Your task to perform on an android device: Add "corsair k70" to the cart on walmart.com, then select checkout. Image 0: 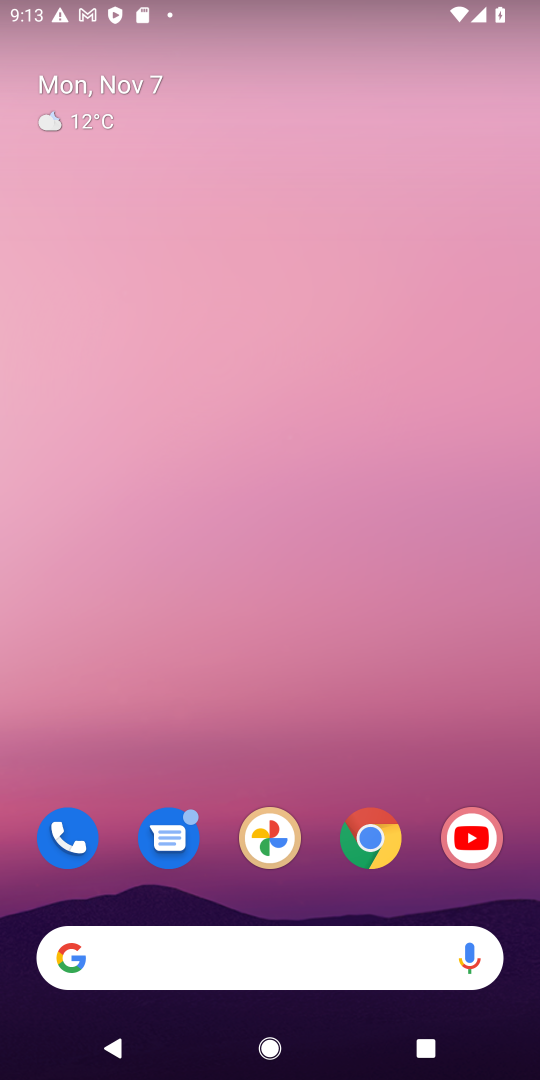
Step 0: click (384, 842)
Your task to perform on an android device: Add "corsair k70" to the cart on walmart.com, then select checkout. Image 1: 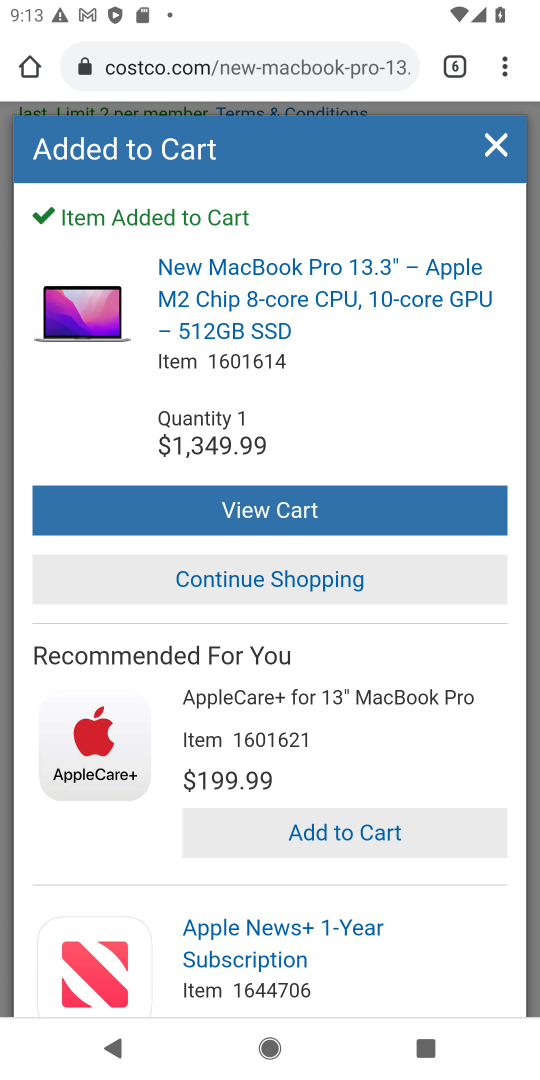
Step 1: click (509, 149)
Your task to perform on an android device: Add "corsair k70" to the cart on walmart.com, then select checkout. Image 2: 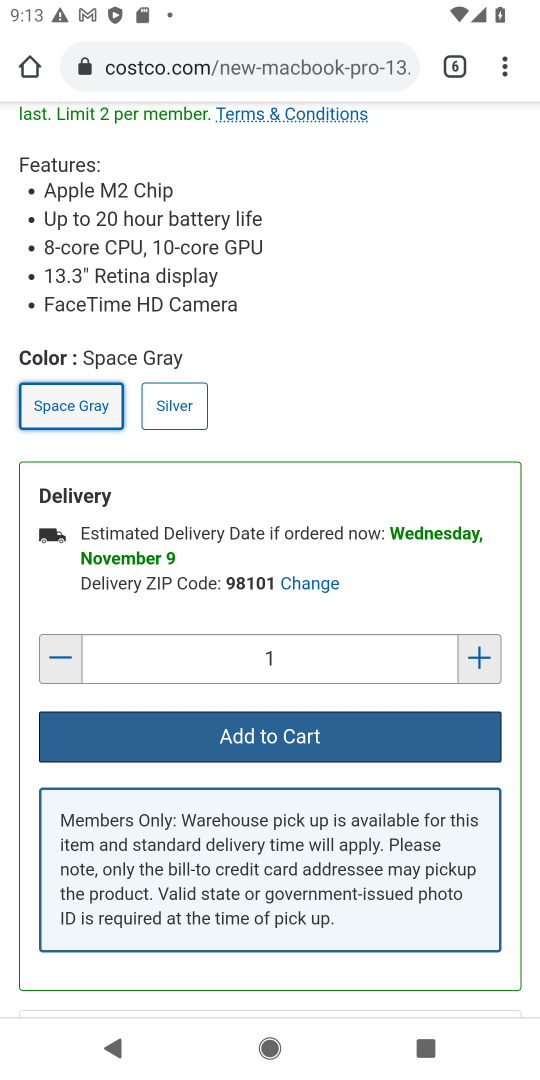
Step 2: drag from (318, 211) to (247, 841)
Your task to perform on an android device: Add "corsair k70" to the cart on walmart.com, then select checkout. Image 3: 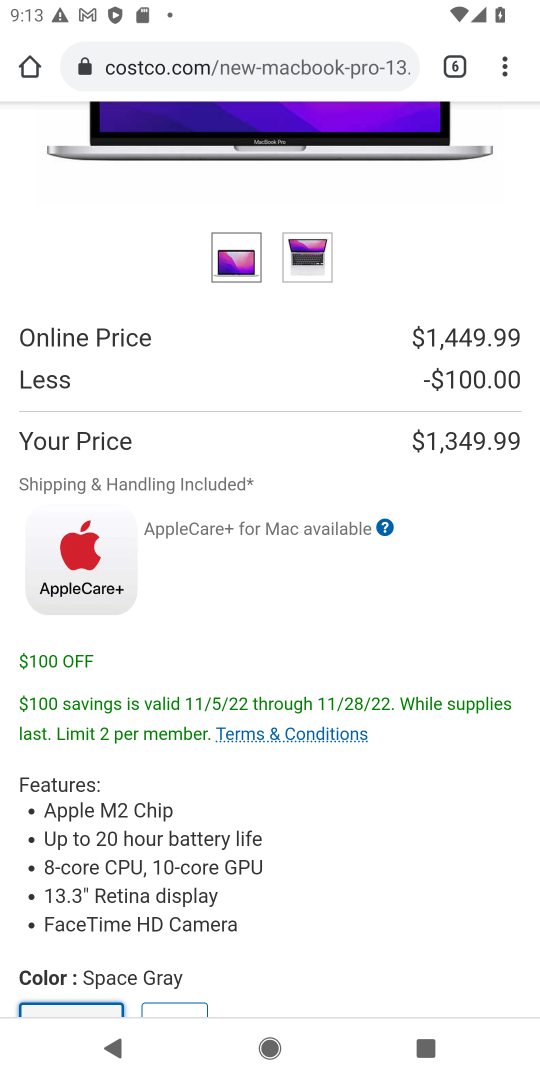
Step 3: drag from (239, 258) to (264, 1044)
Your task to perform on an android device: Add "corsair k70" to the cart on walmart.com, then select checkout. Image 4: 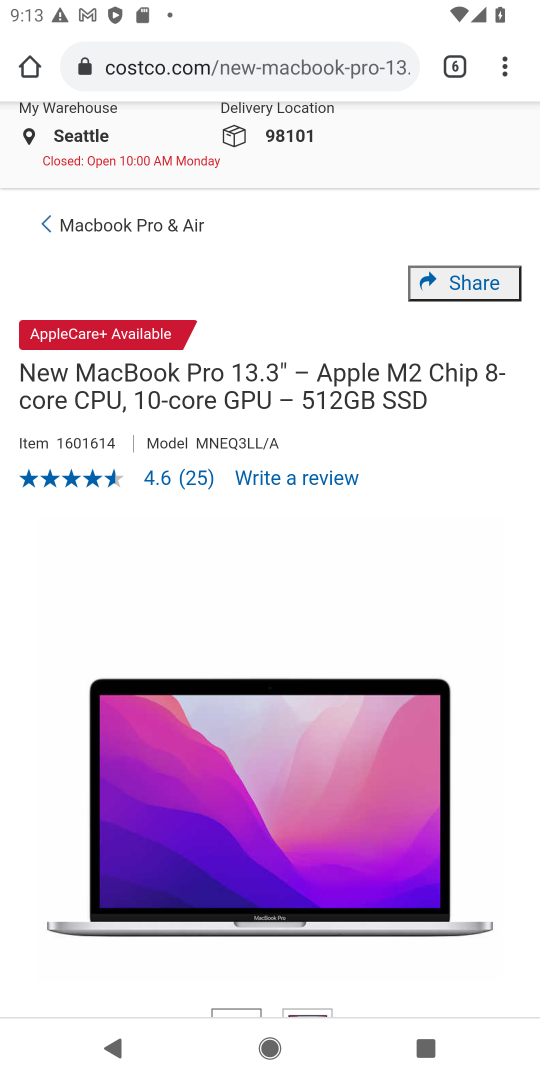
Step 4: drag from (343, 304) to (86, 1079)
Your task to perform on an android device: Add "corsair k70" to the cart on walmart.com, then select checkout. Image 5: 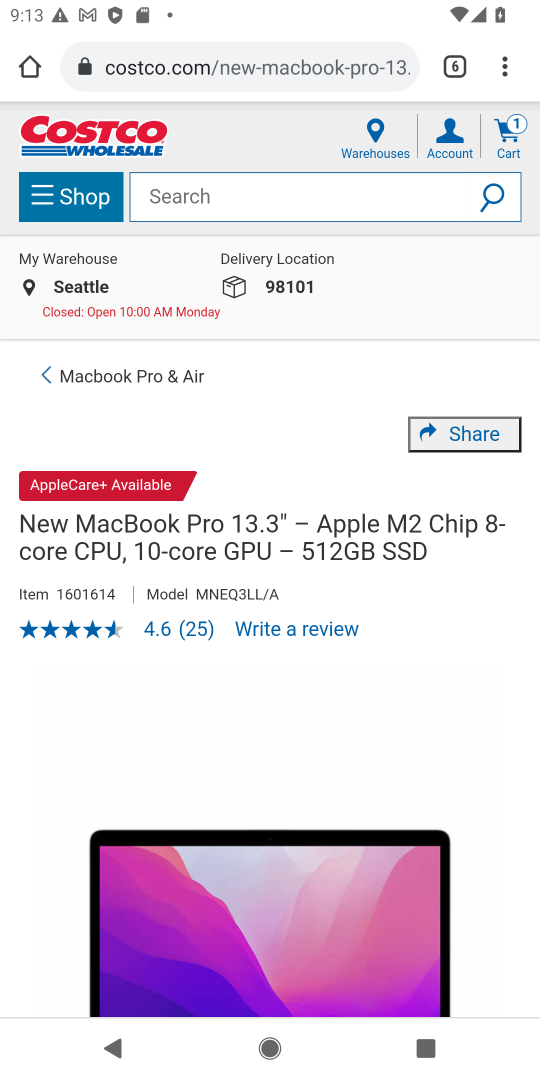
Step 5: click (177, 200)
Your task to perform on an android device: Add "corsair k70" to the cart on walmart.com, then select checkout. Image 6: 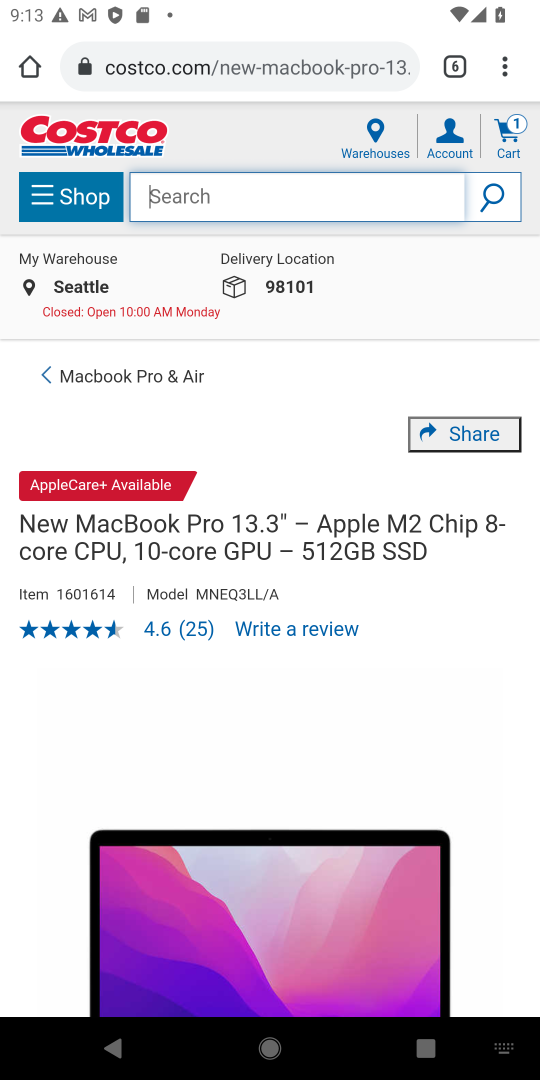
Step 6: type "corsair k70"
Your task to perform on an android device: Add "corsair k70" to the cart on walmart.com, then select checkout. Image 7: 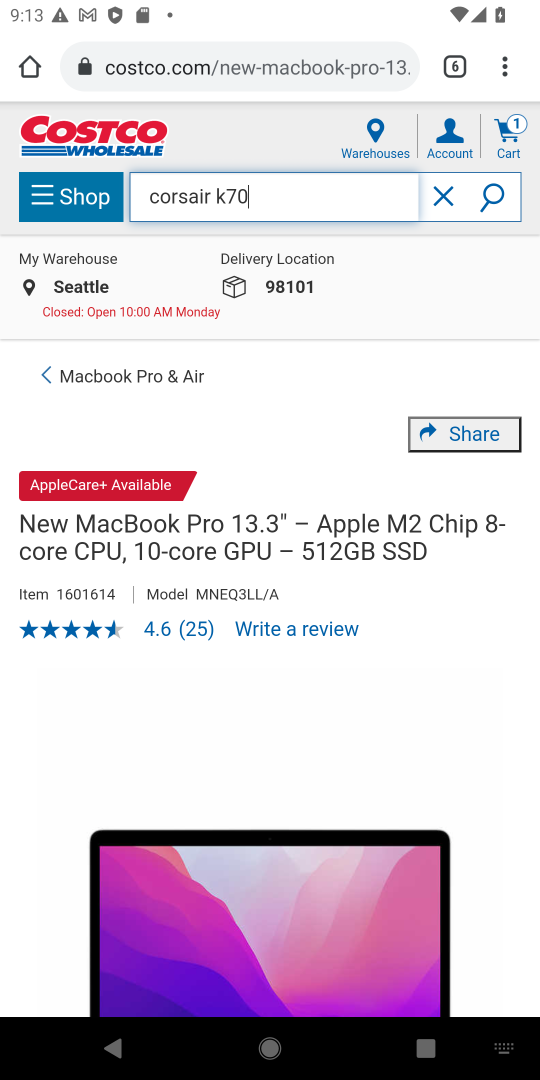
Step 7: click (486, 180)
Your task to perform on an android device: Add "corsair k70" to the cart on walmart.com, then select checkout. Image 8: 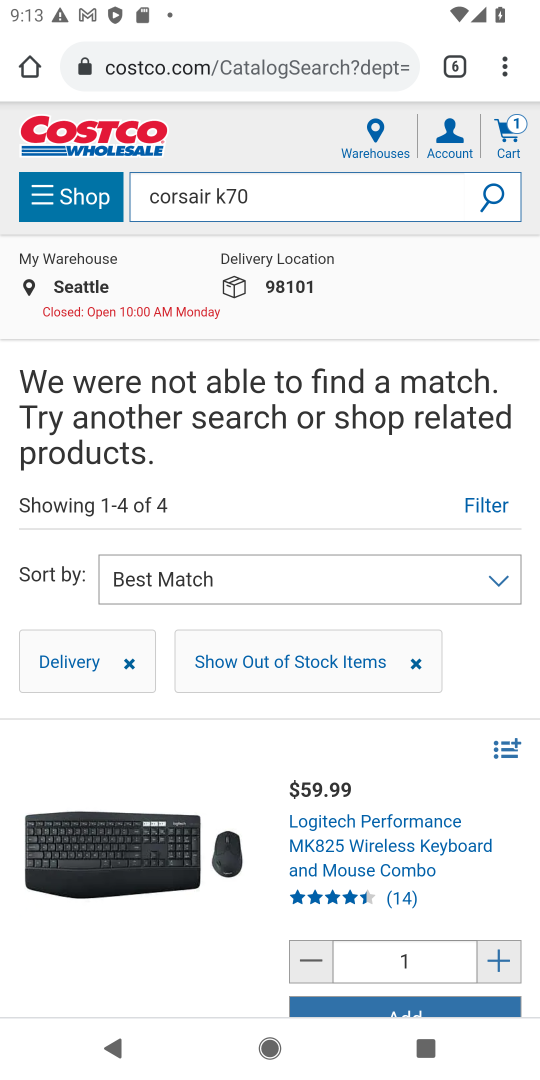
Step 8: drag from (440, 888) to (489, 274)
Your task to perform on an android device: Add "corsair k70" to the cart on walmart.com, then select checkout. Image 9: 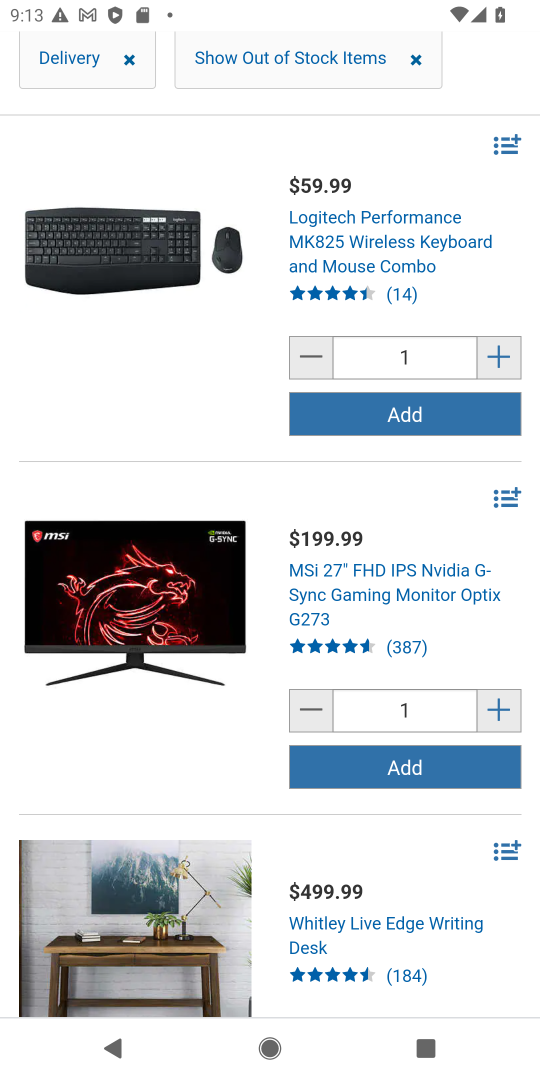
Step 9: click (403, 419)
Your task to perform on an android device: Add "corsair k70" to the cart on walmart.com, then select checkout. Image 10: 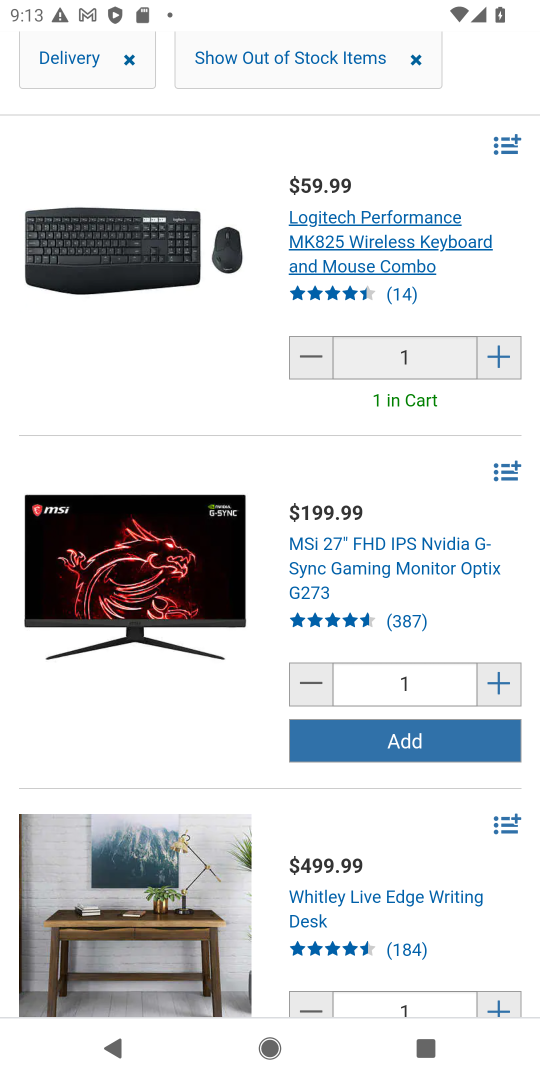
Step 10: drag from (496, 278) to (431, 703)
Your task to perform on an android device: Add "corsair k70" to the cart on walmart.com, then select checkout. Image 11: 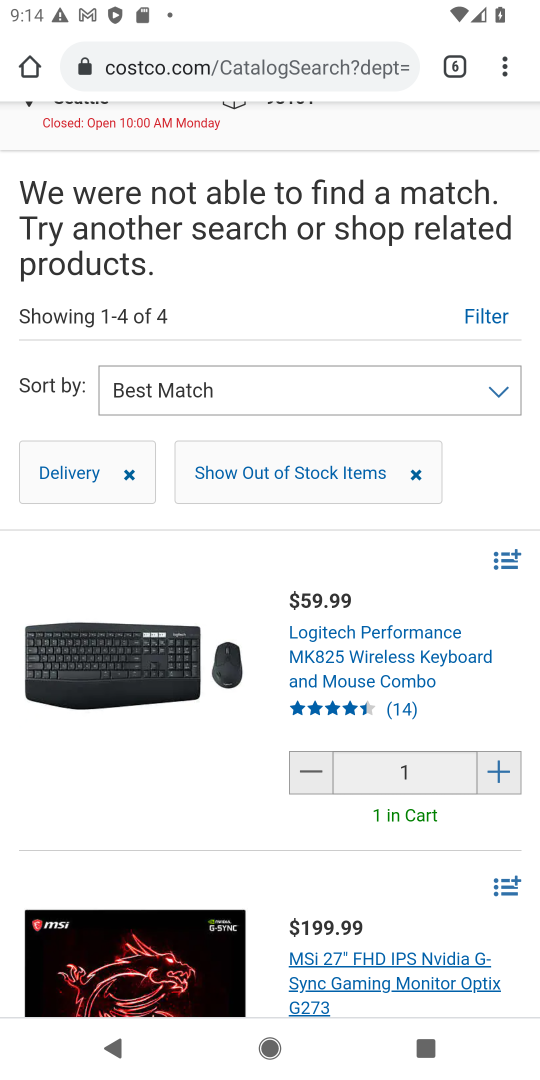
Step 11: drag from (469, 158) to (356, 646)
Your task to perform on an android device: Add "corsair k70" to the cart on walmart.com, then select checkout. Image 12: 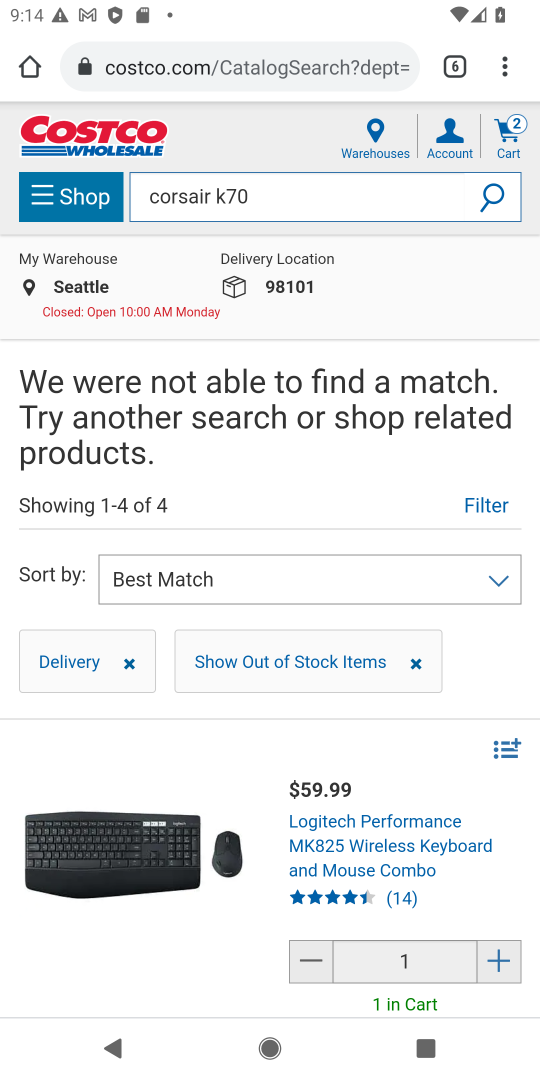
Step 12: click (518, 134)
Your task to perform on an android device: Add "corsair k70" to the cart on walmart.com, then select checkout. Image 13: 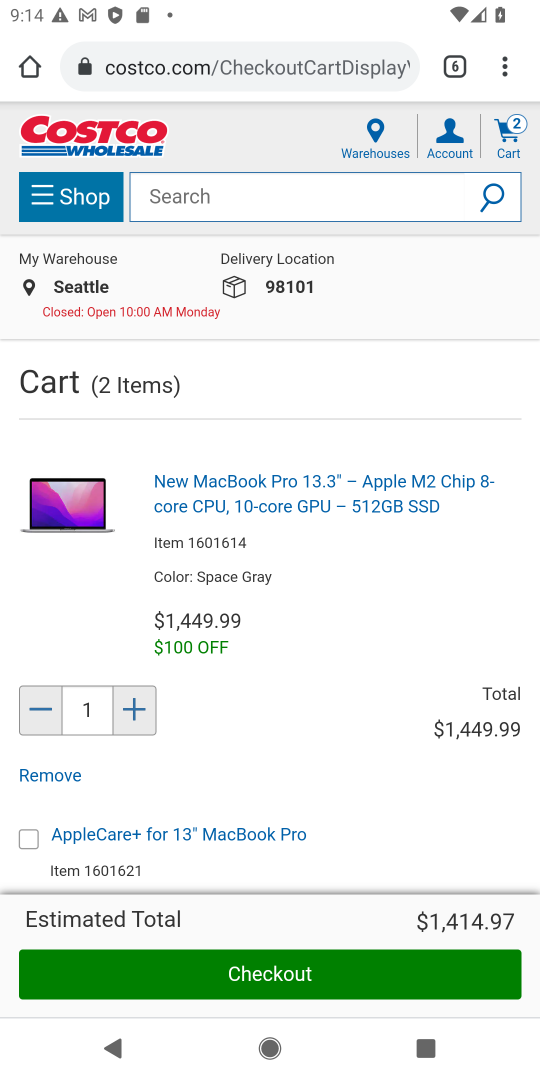
Step 13: click (294, 966)
Your task to perform on an android device: Add "corsair k70" to the cart on walmart.com, then select checkout. Image 14: 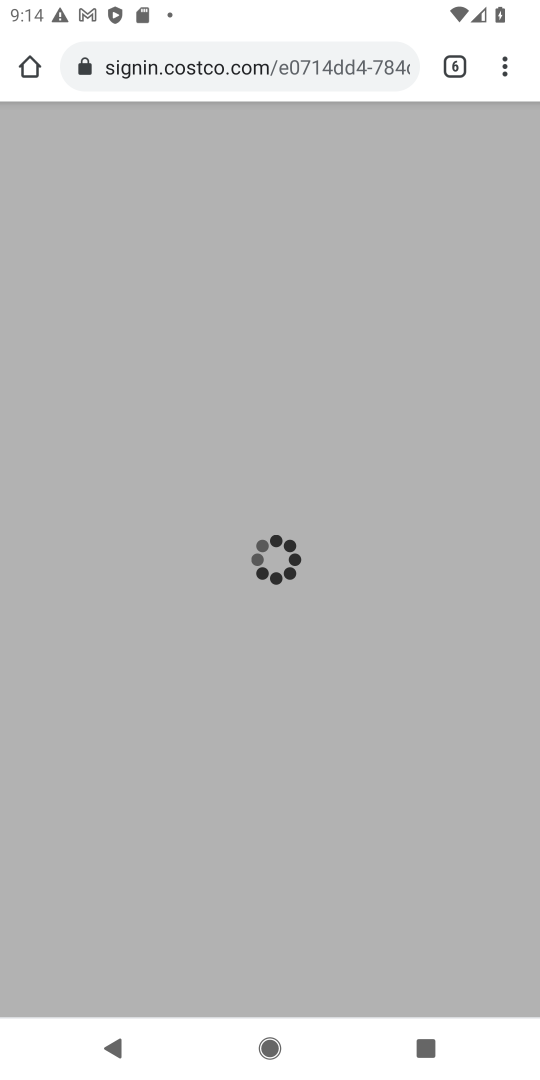
Step 14: click (302, 982)
Your task to perform on an android device: Add "corsair k70" to the cart on walmart.com, then select checkout. Image 15: 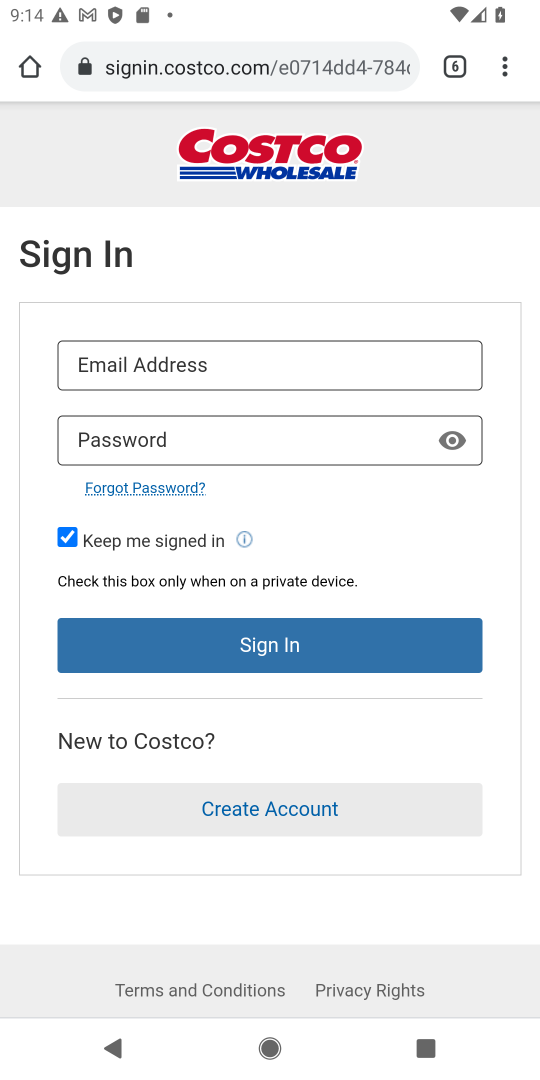
Step 15: task complete